Your task to perform on an android device: Go to internet settings Image 0: 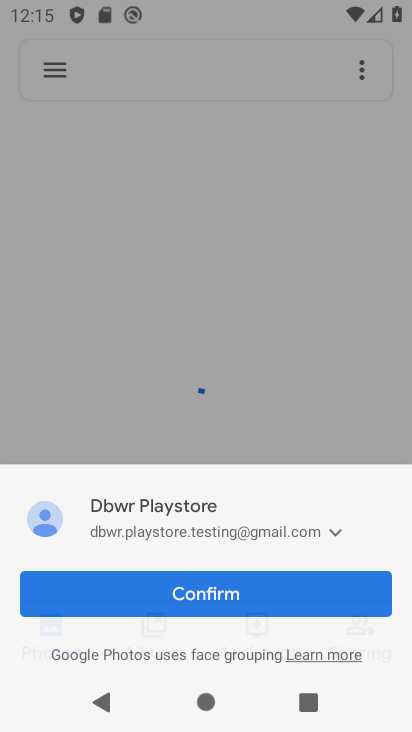
Step 0: press home button
Your task to perform on an android device: Go to internet settings Image 1: 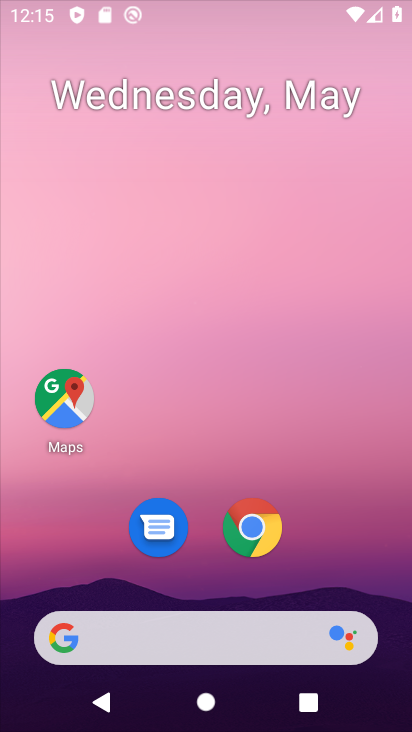
Step 1: drag from (304, 507) to (232, 10)
Your task to perform on an android device: Go to internet settings Image 2: 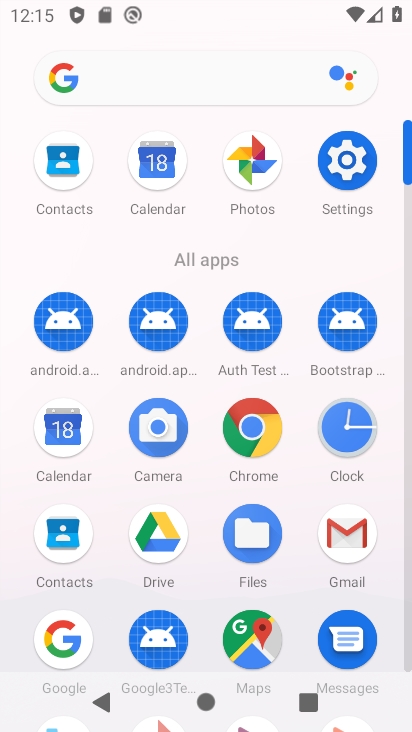
Step 2: click (349, 172)
Your task to perform on an android device: Go to internet settings Image 3: 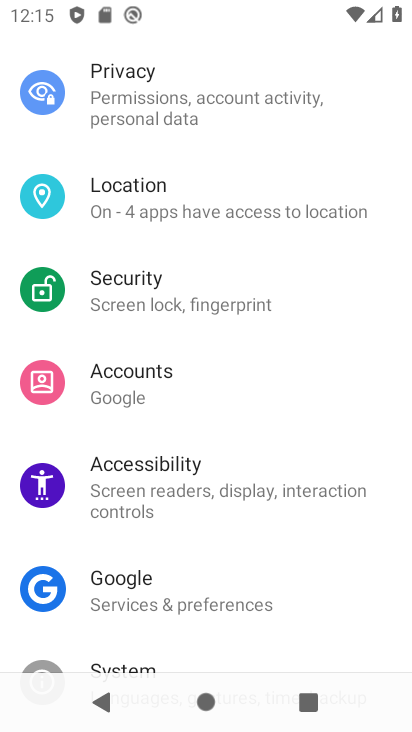
Step 3: drag from (296, 122) to (212, 727)
Your task to perform on an android device: Go to internet settings Image 4: 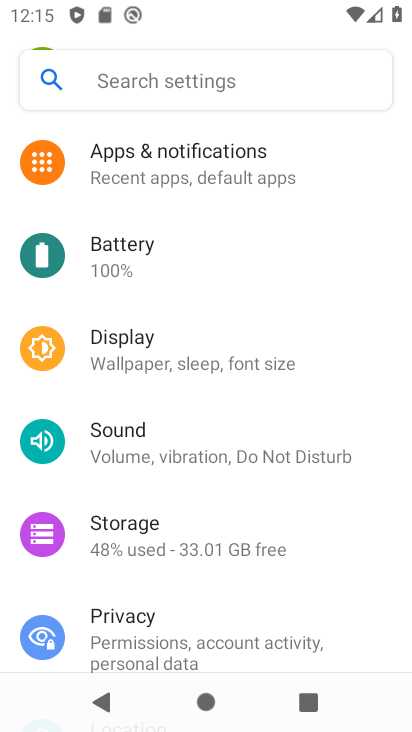
Step 4: drag from (226, 213) to (218, 710)
Your task to perform on an android device: Go to internet settings Image 5: 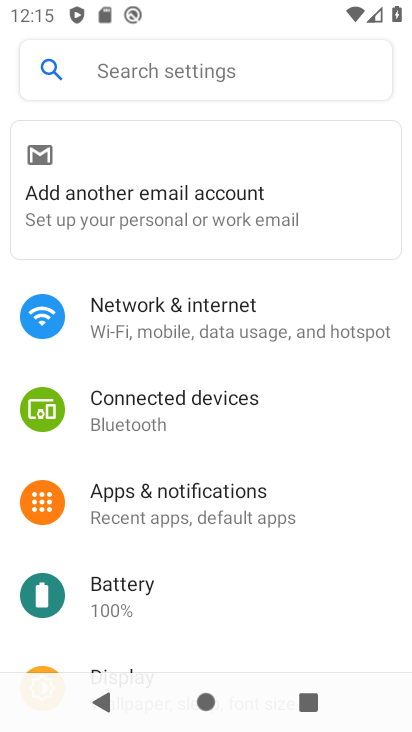
Step 5: click (221, 300)
Your task to perform on an android device: Go to internet settings Image 6: 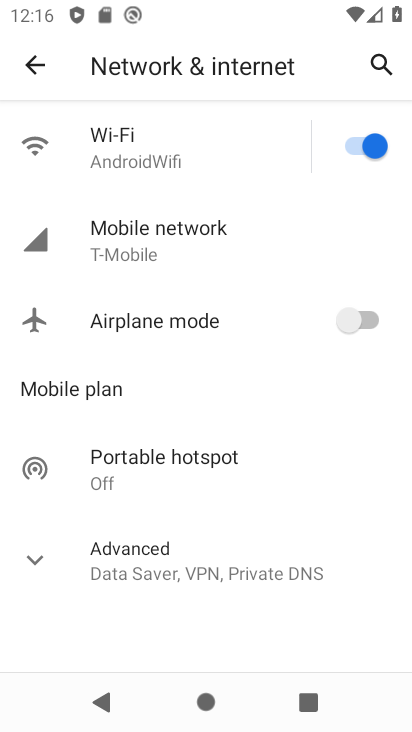
Step 6: task complete